Your task to perform on an android device: Add "usb-c to usb-b" to the cart on costco Image 0: 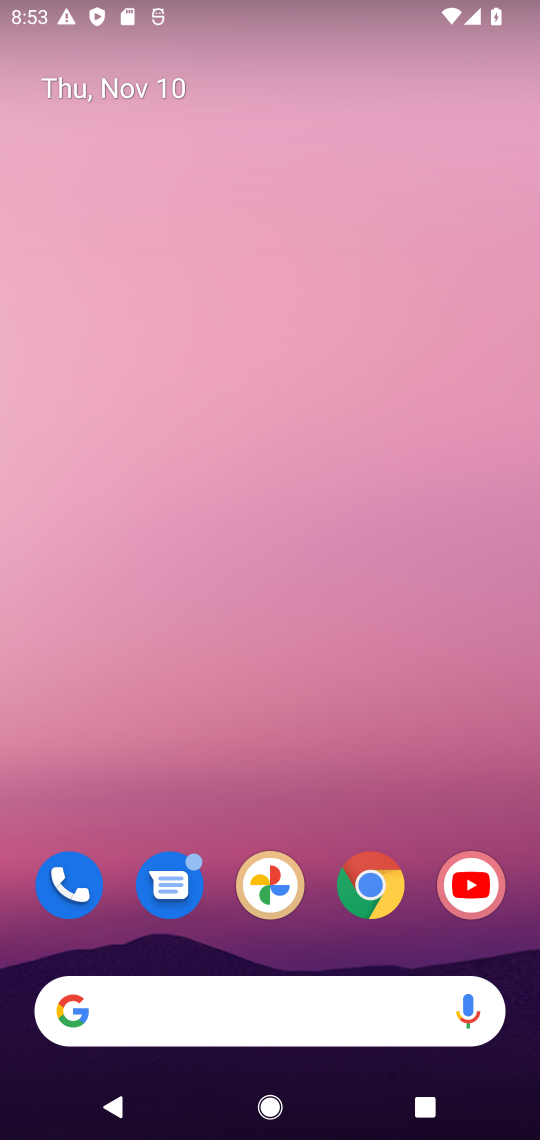
Step 0: click (380, 884)
Your task to perform on an android device: Add "usb-c to usb-b" to the cart on costco Image 1: 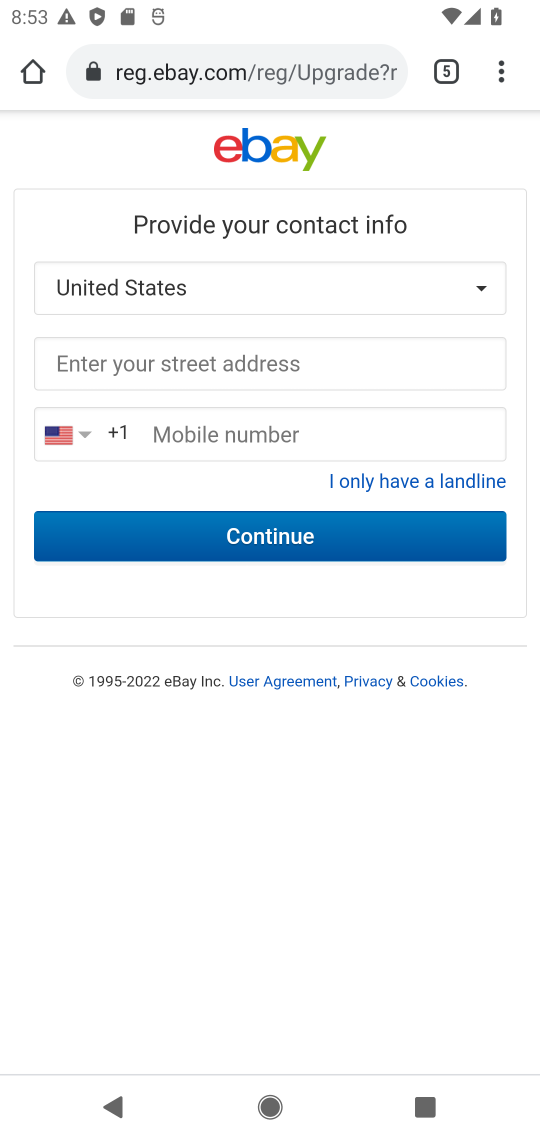
Step 1: click (449, 72)
Your task to perform on an android device: Add "usb-c to usb-b" to the cart on costco Image 2: 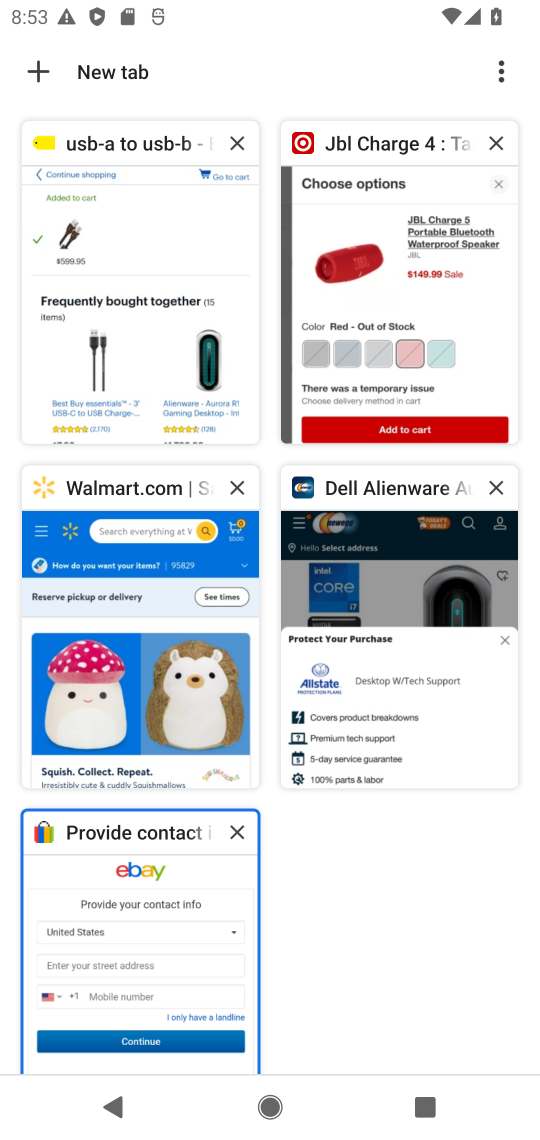
Step 2: click (39, 69)
Your task to perform on an android device: Add "usb-c to usb-b" to the cart on costco Image 3: 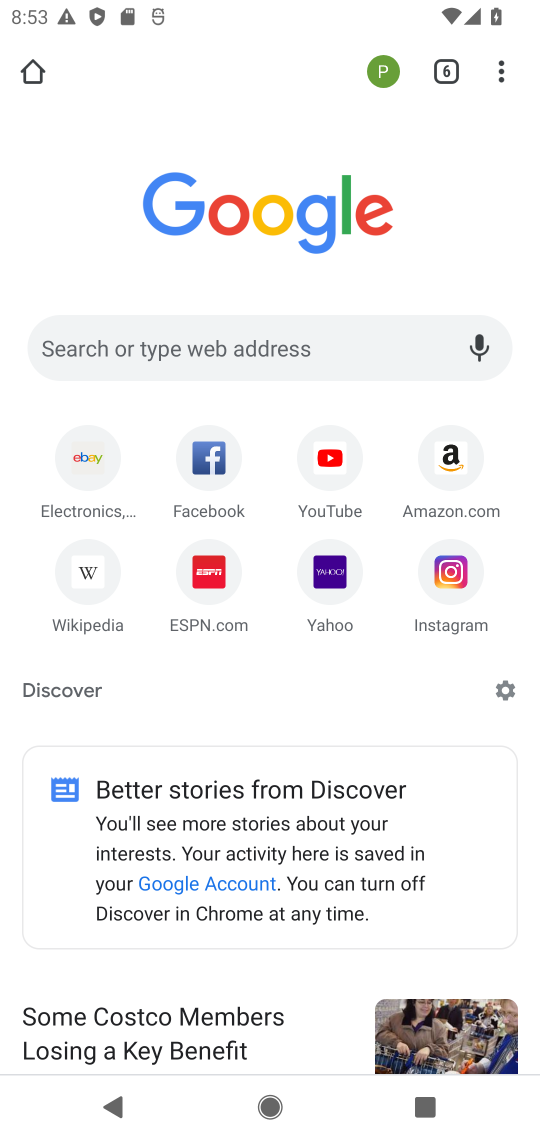
Step 3: click (255, 345)
Your task to perform on an android device: Add "usb-c to usb-b" to the cart on costco Image 4: 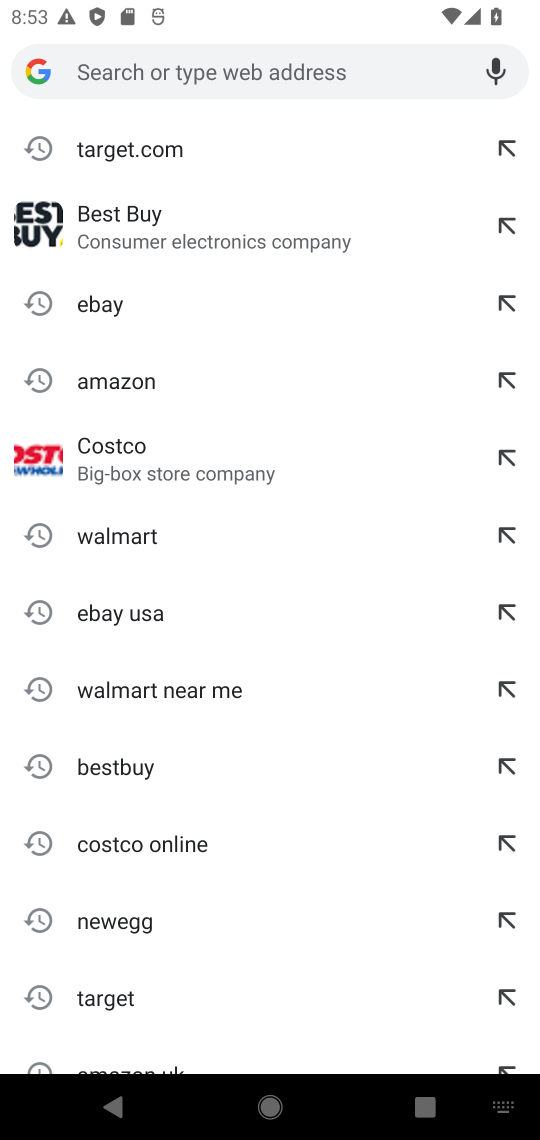
Step 4: type "costco"
Your task to perform on an android device: Add "usb-c to usb-b" to the cart on costco Image 5: 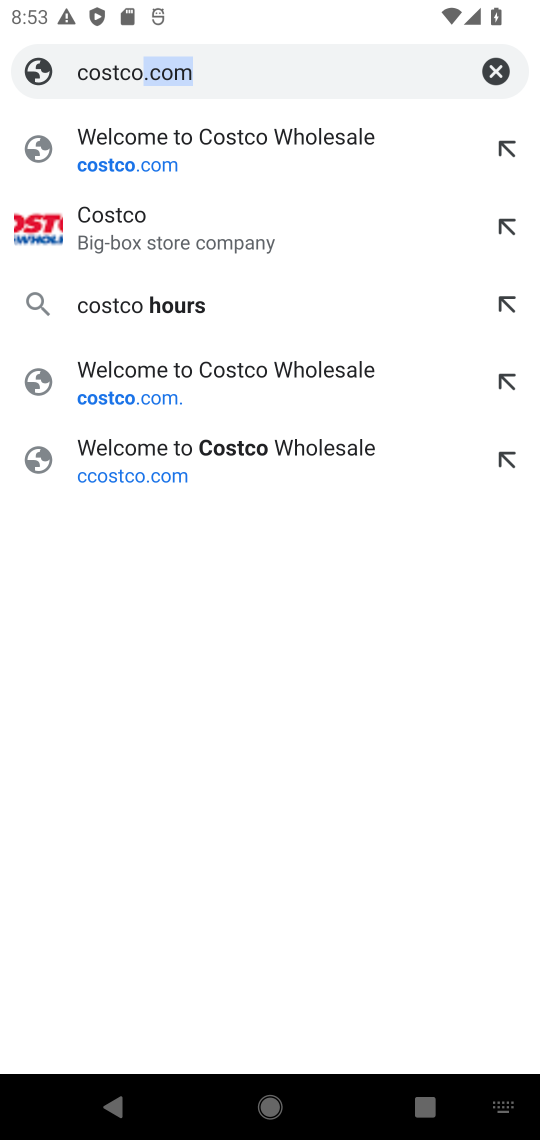
Step 5: click (193, 156)
Your task to perform on an android device: Add "usb-c to usb-b" to the cart on costco Image 6: 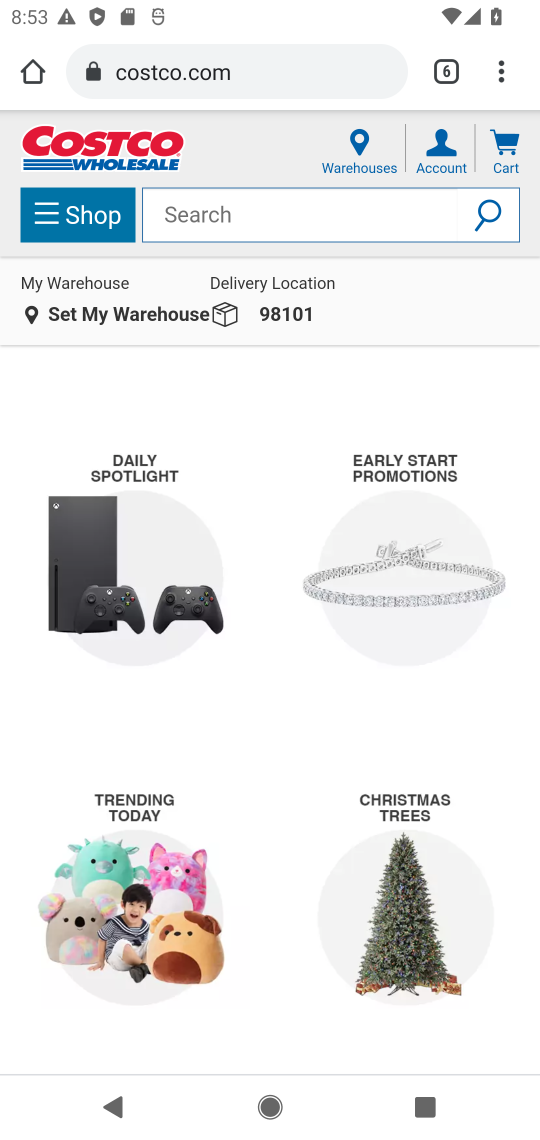
Step 6: click (209, 213)
Your task to perform on an android device: Add "usb-c to usb-b" to the cart on costco Image 7: 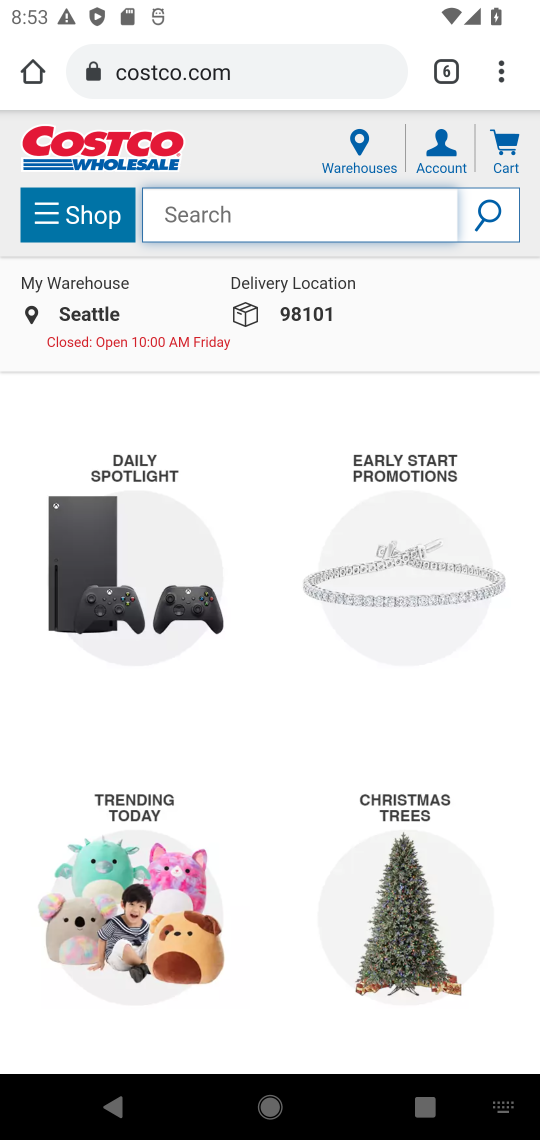
Step 7: type "usb-c to usb-b"
Your task to perform on an android device: Add "usb-c to usb-b" to the cart on costco Image 8: 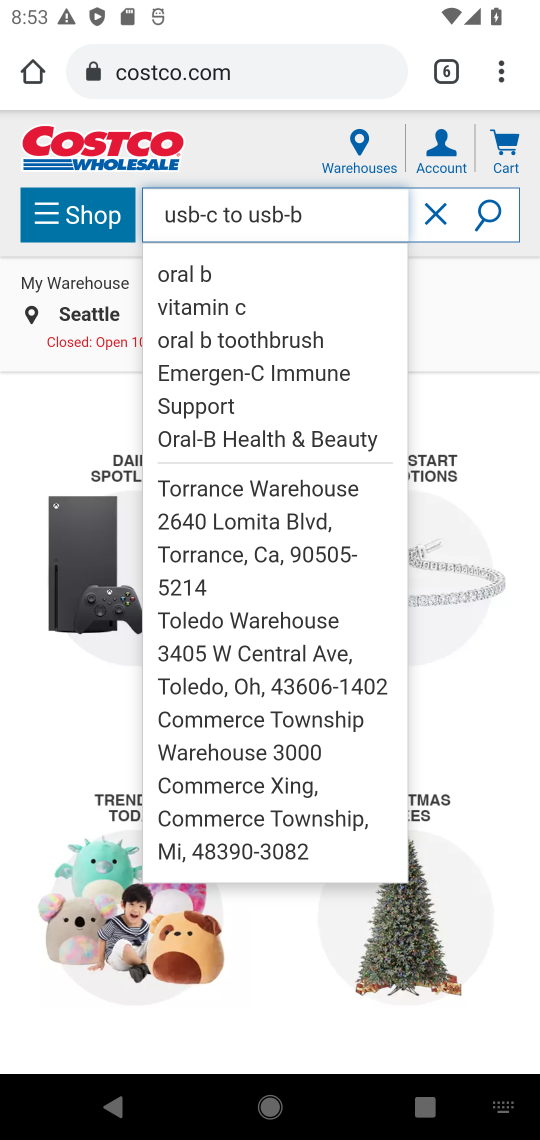
Step 8: click (487, 216)
Your task to perform on an android device: Add "usb-c to usb-b" to the cart on costco Image 9: 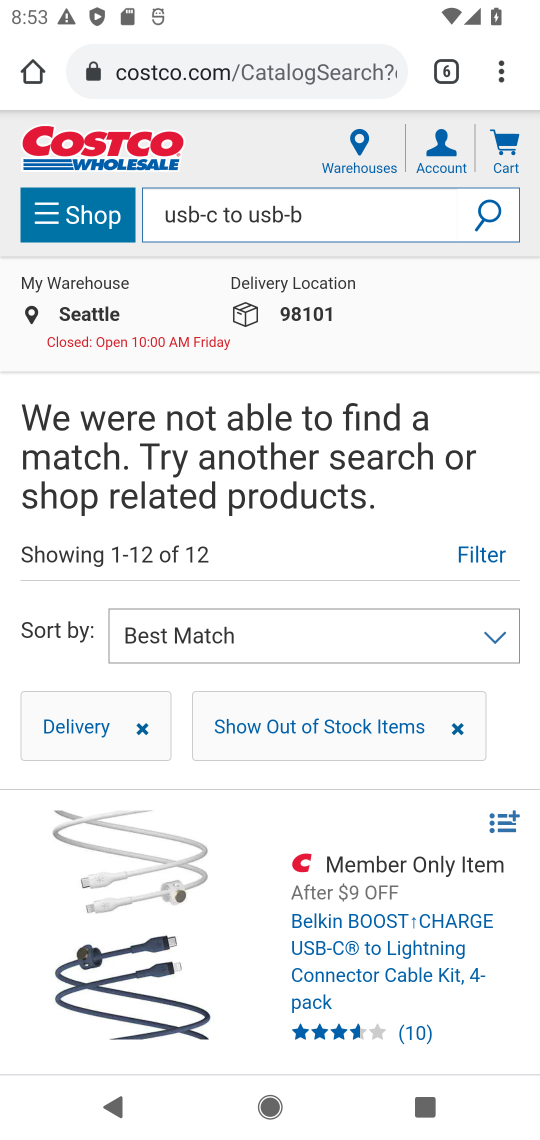
Step 9: drag from (221, 940) to (337, 556)
Your task to perform on an android device: Add "usb-c to usb-b" to the cart on costco Image 10: 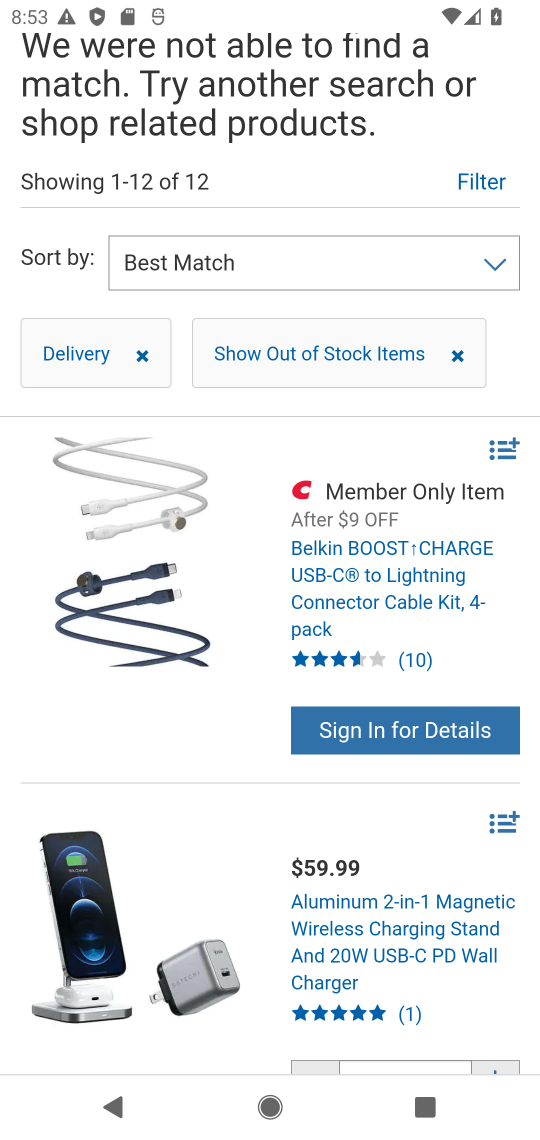
Step 10: click (387, 555)
Your task to perform on an android device: Add "usb-c to usb-b" to the cart on costco Image 11: 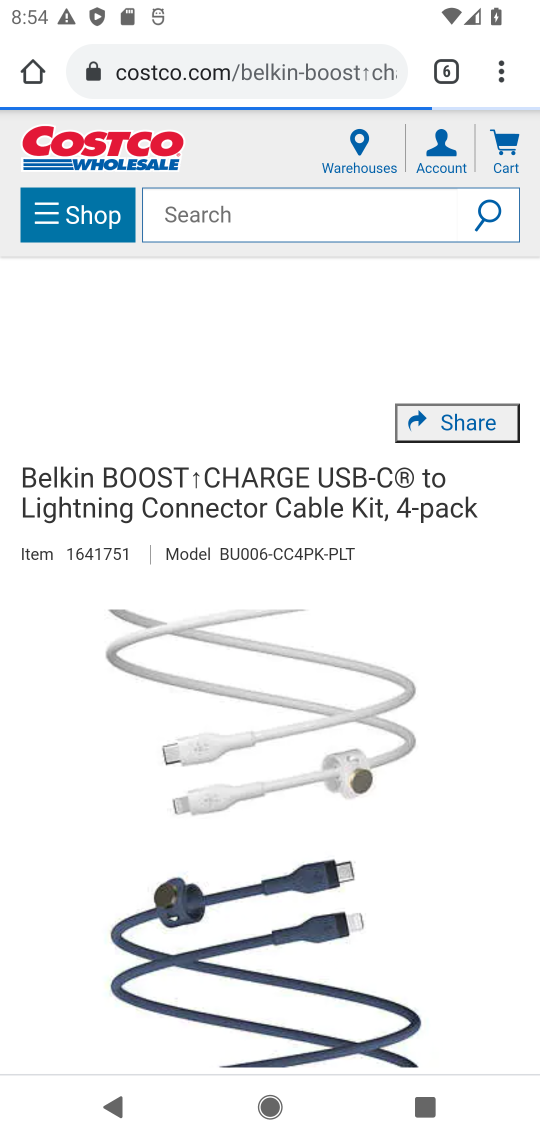
Step 11: drag from (421, 875) to (404, 361)
Your task to perform on an android device: Add "usb-c to usb-b" to the cart on costco Image 12: 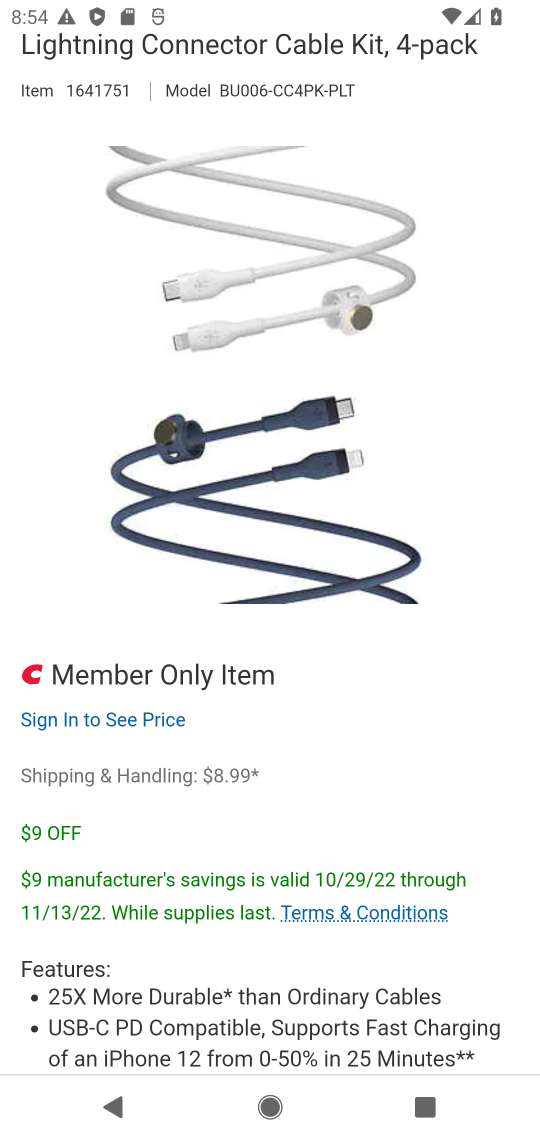
Step 12: drag from (258, 823) to (395, 534)
Your task to perform on an android device: Add "usb-c to usb-b" to the cart on costco Image 13: 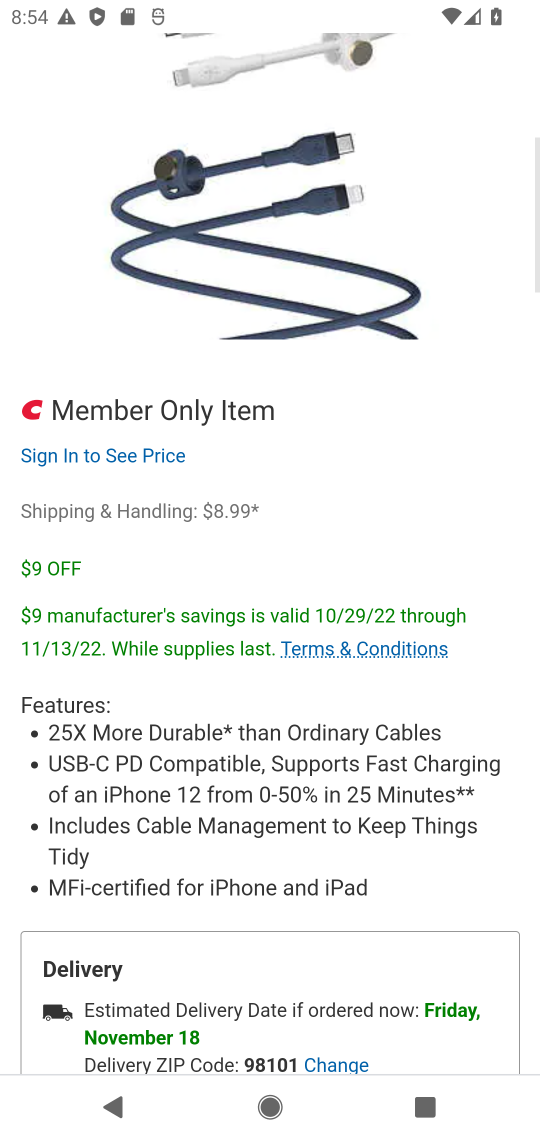
Step 13: drag from (473, 846) to (450, 218)
Your task to perform on an android device: Add "usb-c to usb-b" to the cart on costco Image 14: 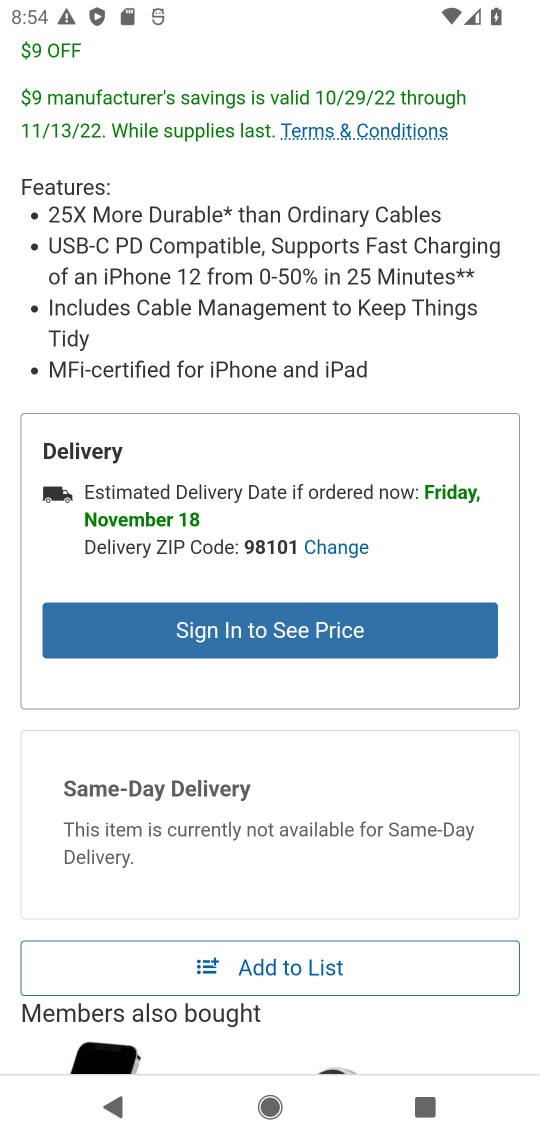
Step 14: press back button
Your task to perform on an android device: Add "usb-c to usb-b" to the cart on costco Image 15: 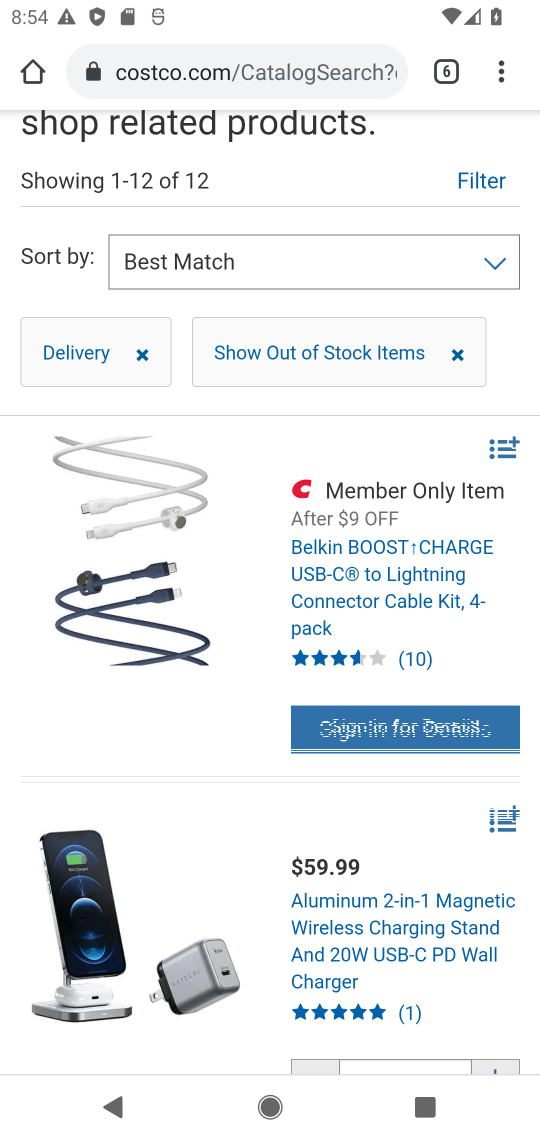
Step 15: drag from (254, 1039) to (323, 475)
Your task to perform on an android device: Add "usb-c to usb-b" to the cart on costco Image 16: 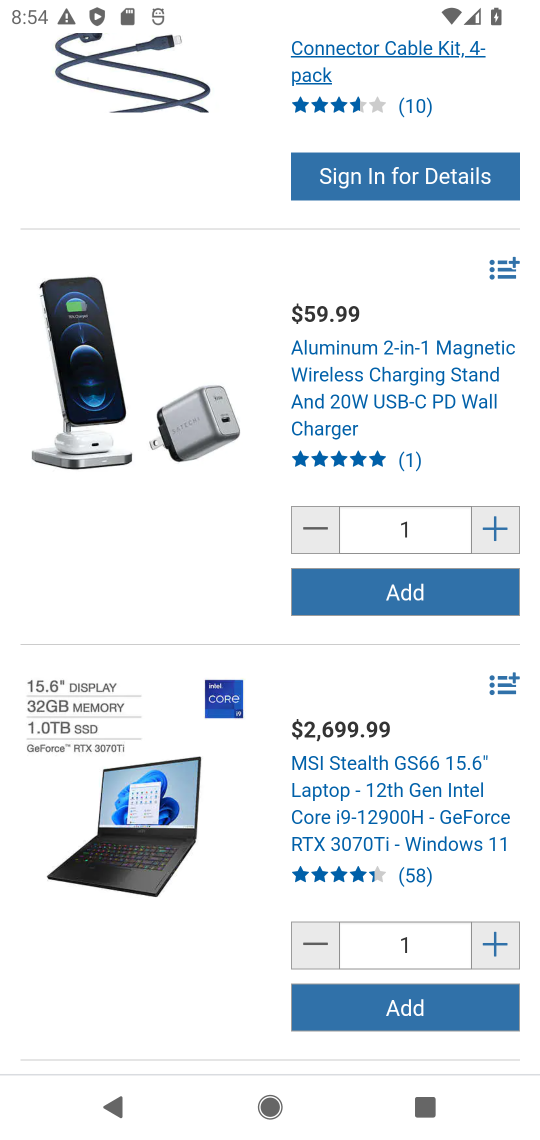
Step 16: drag from (241, 851) to (212, 511)
Your task to perform on an android device: Add "usb-c to usb-b" to the cart on costco Image 17: 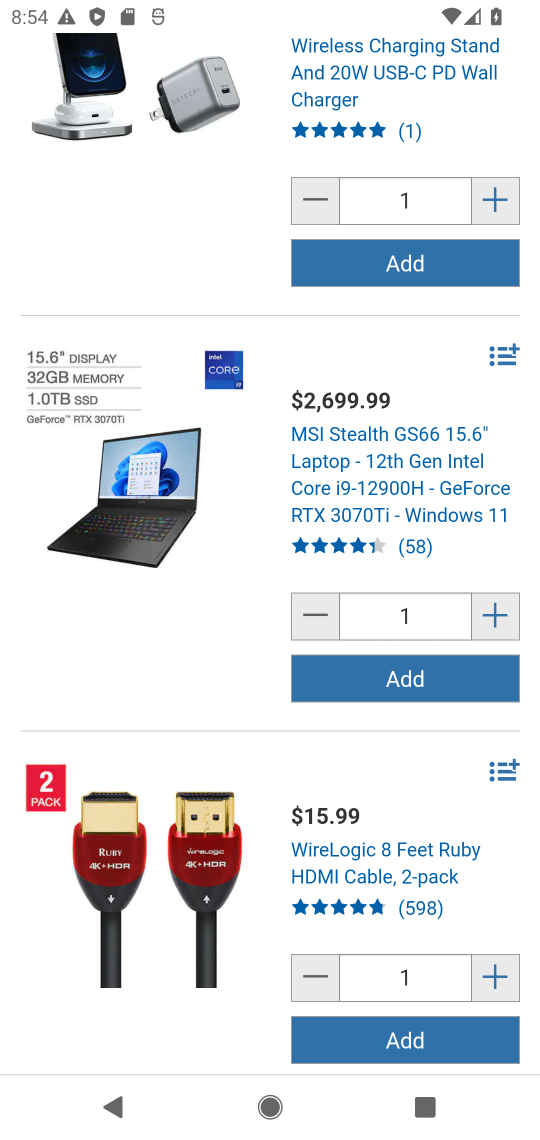
Step 17: drag from (216, 1014) to (266, 557)
Your task to perform on an android device: Add "usb-c to usb-b" to the cart on costco Image 18: 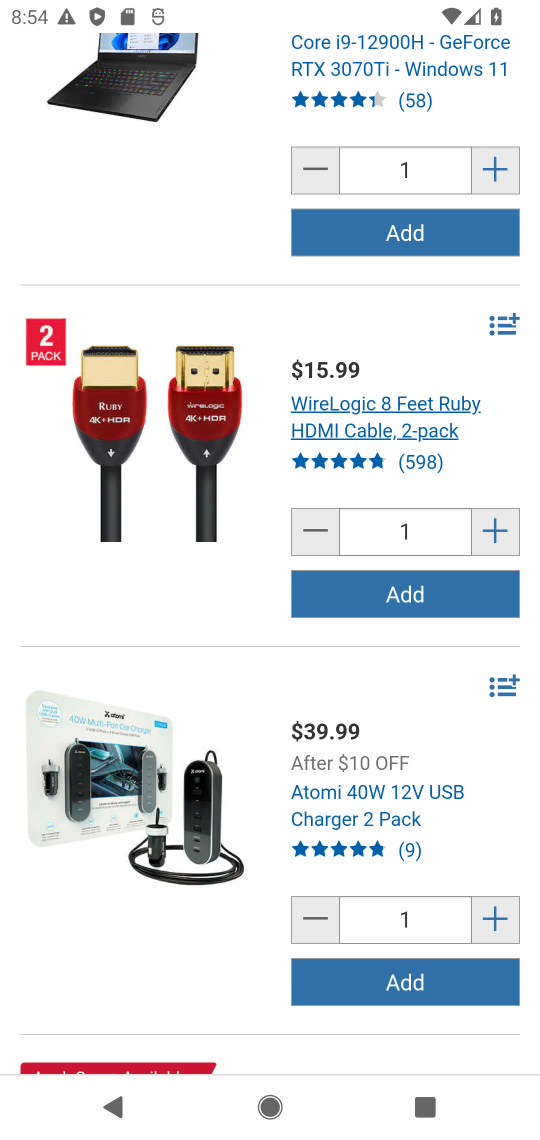
Step 18: drag from (210, 1019) to (271, 538)
Your task to perform on an android device: Add "usb-c to usb-b" to the cart on costco Image 19: 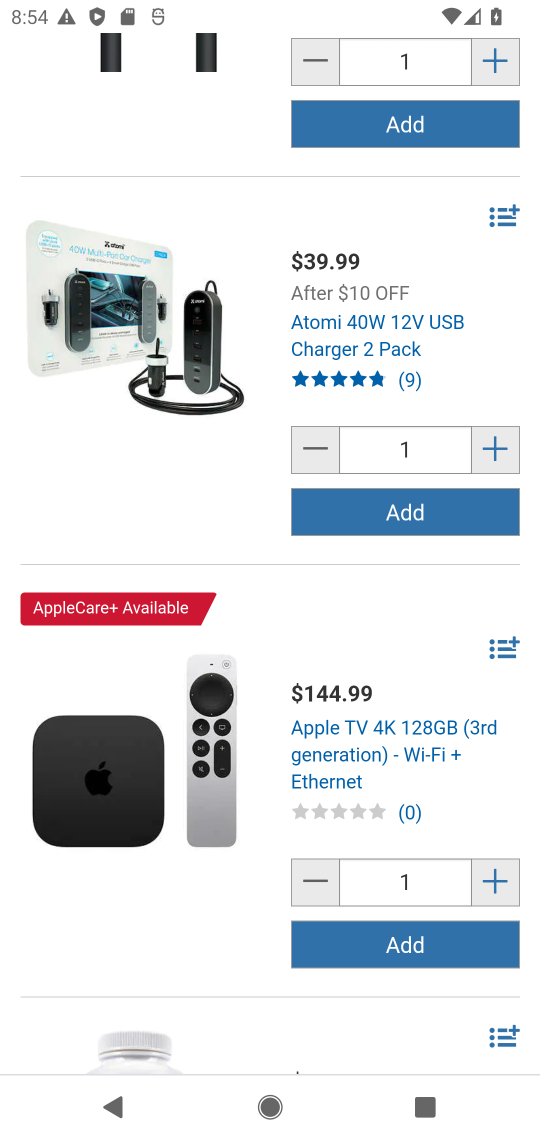
Step 19: drag from (193, 945) to (207, 818)
Your task to perform on an android device: Add "usb-c to usb-b" to the cart on costco Image 20: 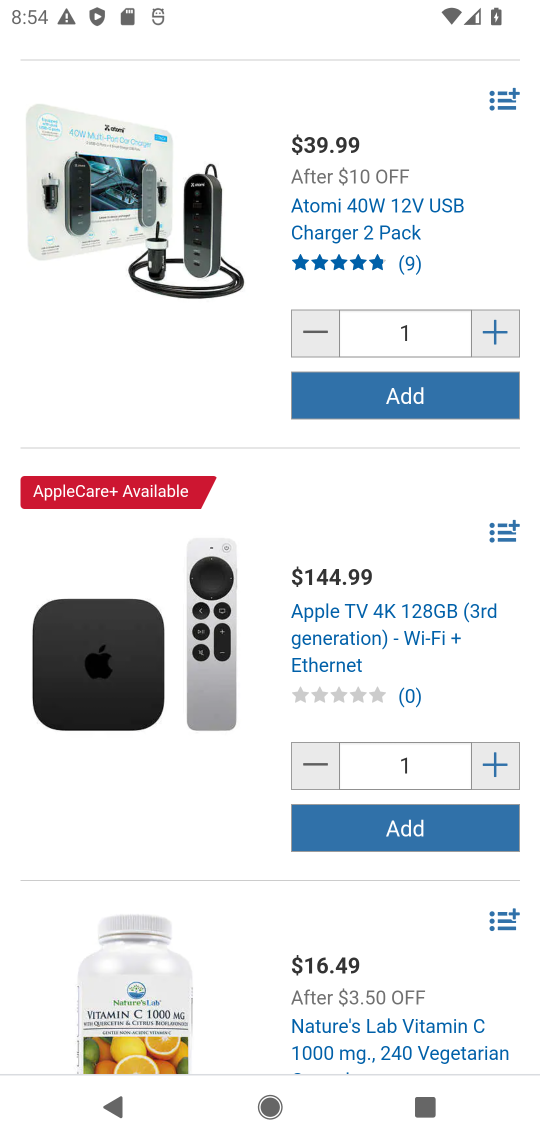
Step 20: click (236, 1055)
Your task to perform on an android device: Add "usb-c to usb-b" to the cart on costco Image 21: 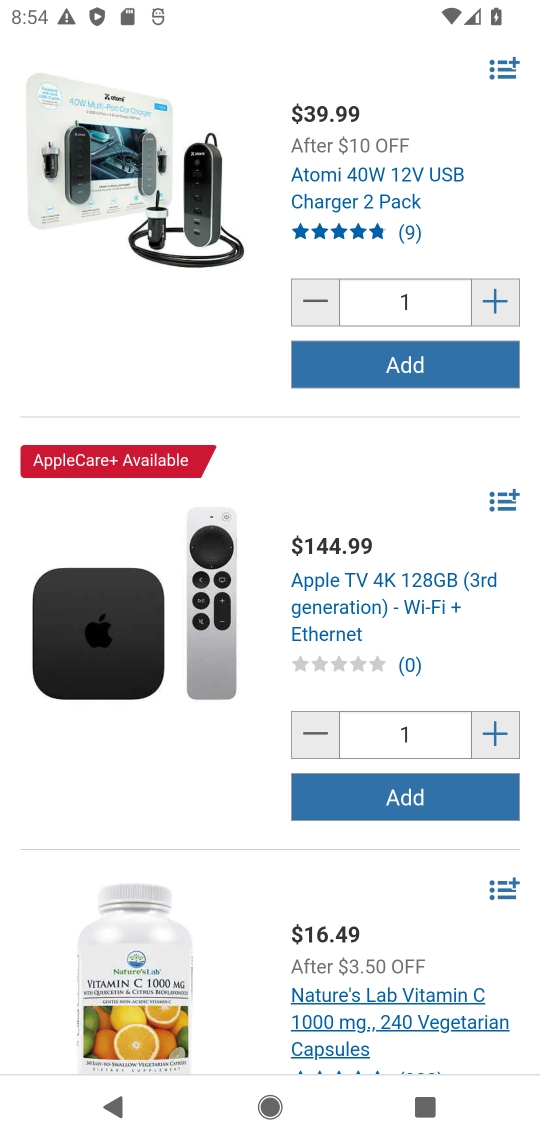
Step 21: task complete